Your task to perform on an android device: Search for pizza restaurants on Maps Image 0: 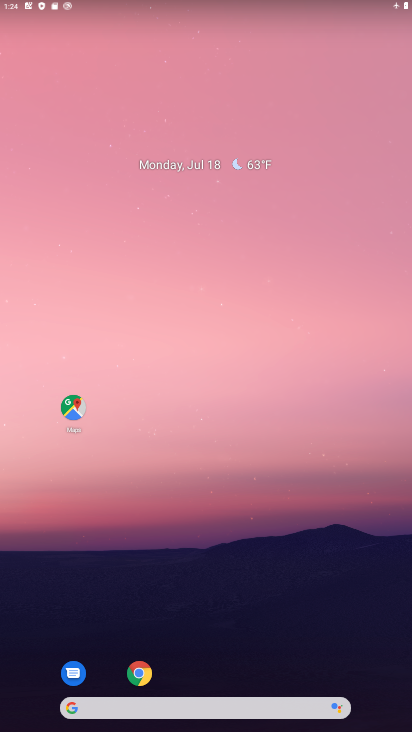
Step 0: drag from (276, 689) to (278, 551)
Your task to perform on an android device: Search for pizza restaurants on Maps Image 1: 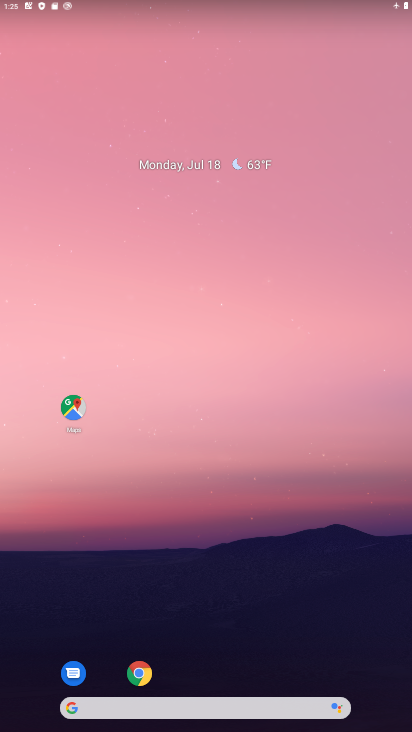
Step 1: drag from (236, 683) to (226, 153)
Your task to perform on an android device: Search for pizza restaurants on Maps Image 2: 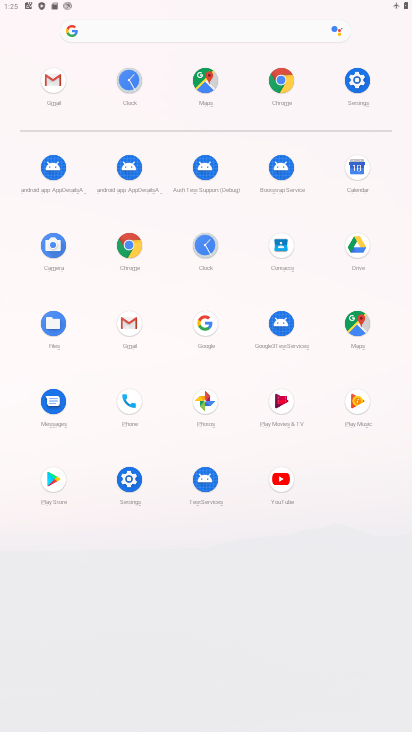
Step 2: click (209, 74)
Your task to perform on an android device: Search for pizza restaurants on Maps Image 3: 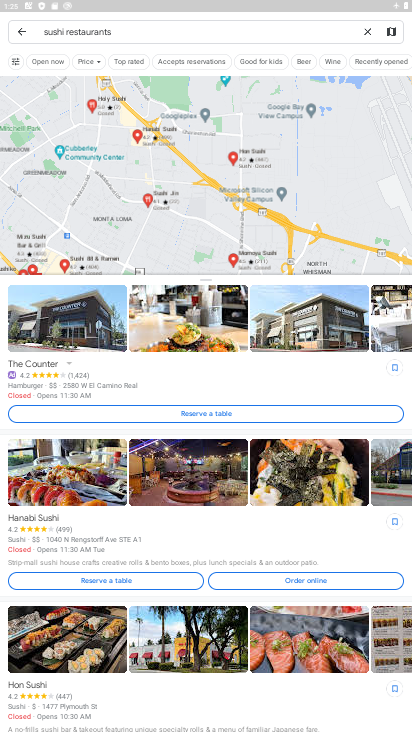
Step 3: click (364, 36)
Your task to perform on an android device: Search for pizza restaurants on Maps Image 4: 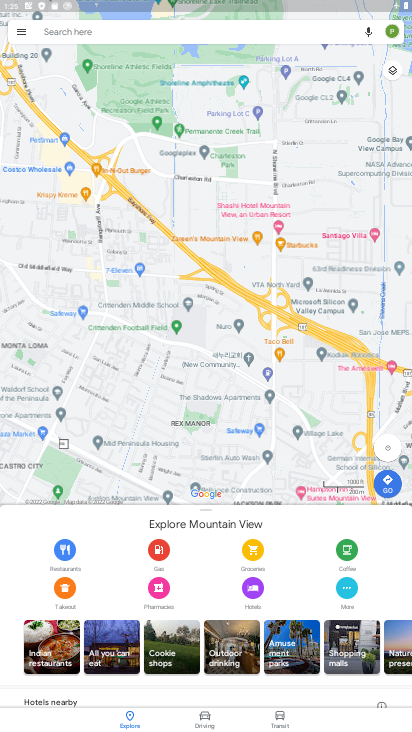
Step 4: click (197, 30)
Your task to perform on an android device: Search for pizza restaurants on Maps Image 5: 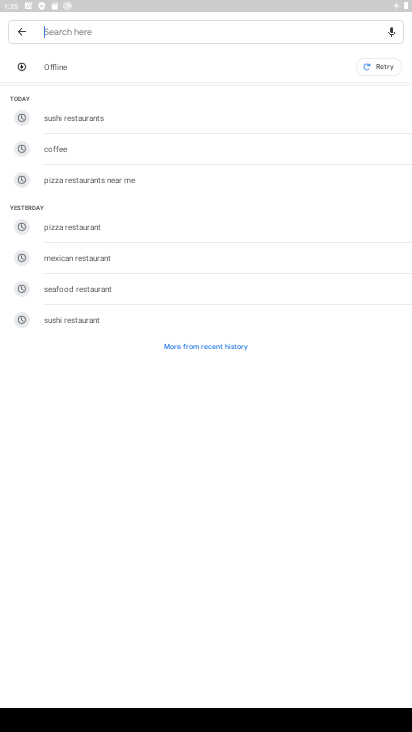
Step 5: click (110, 234)
Your task to perform on an android device: Search for pizza restaurants on Maps Image 6: 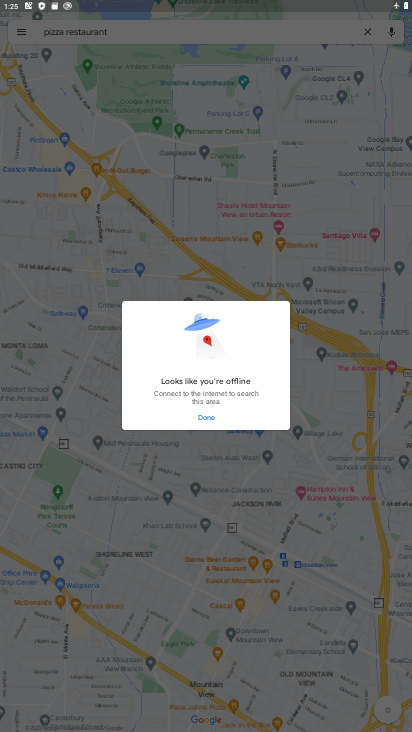
Step 6: click (200, 419)
Your task to perform on an android device: Search for pizza restaurants on Maps Image 7: 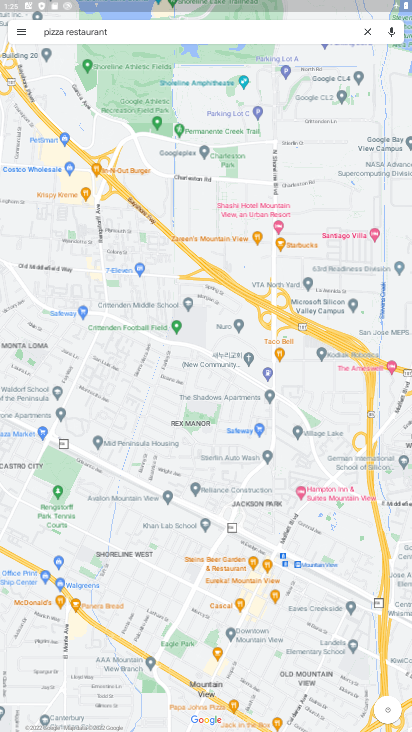
Step 7: task complete